Your task to perform on an android device: turn vacation reply on in the gmail app Image 0: 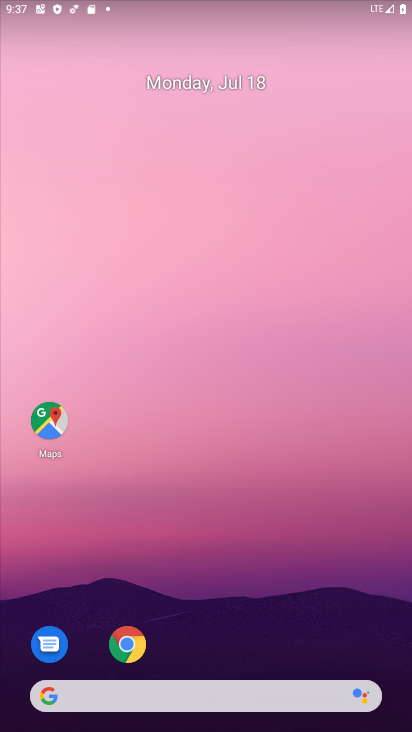
Step 0: drag from (188, 665) to (118, 78)
Your task to perform on an android device: turn vacation reply on in the gmail app Image 1: 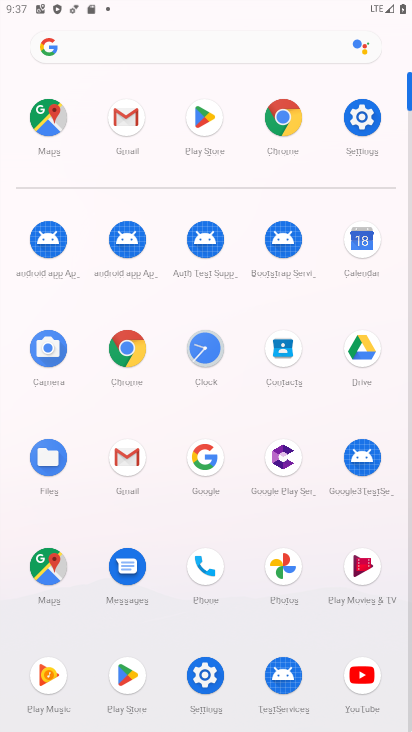
Step 1: click (138, 462)
Your task to perform on an android device: turn vacation reply on in the gmail app Image 2: 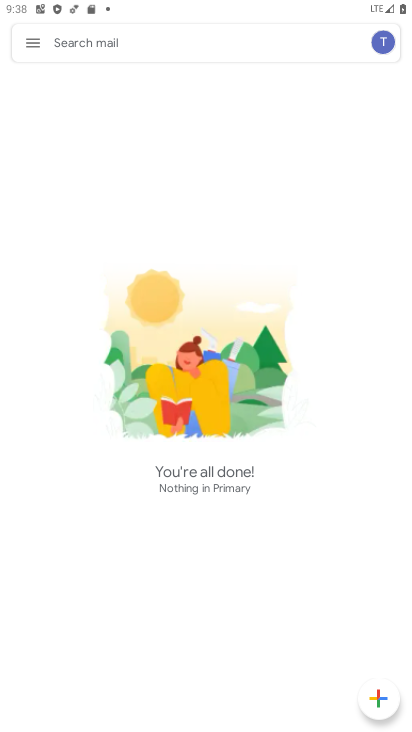
Step 2: click (35, 36)
Your task to perform on an android device: turn vacation reply on in the gmail app Image 3: 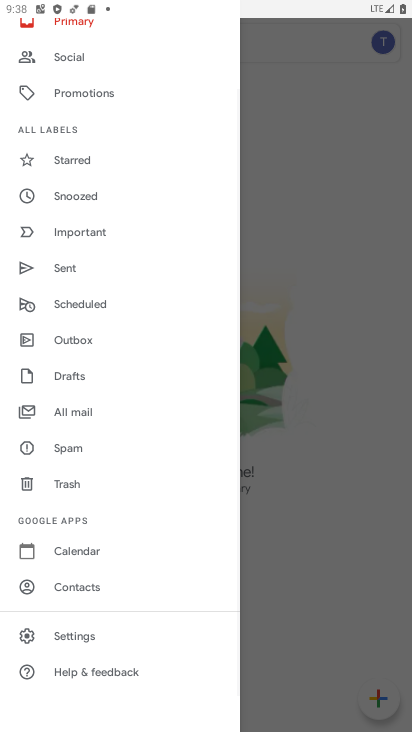
Step 3: click (78, 627)
Your task to perform on an android device: turn vacation reply on in the gmail app Image 4: 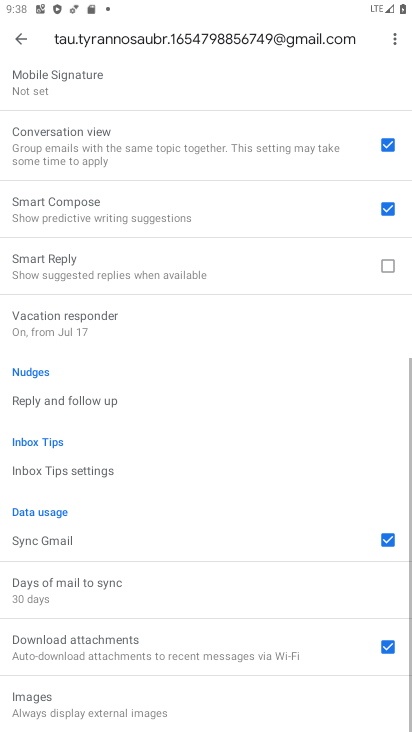
Step 4: drag from (78, 625) to (78, 173)
Your task to perform on an android device: turn vacation reply on in the gmail app Image 5: 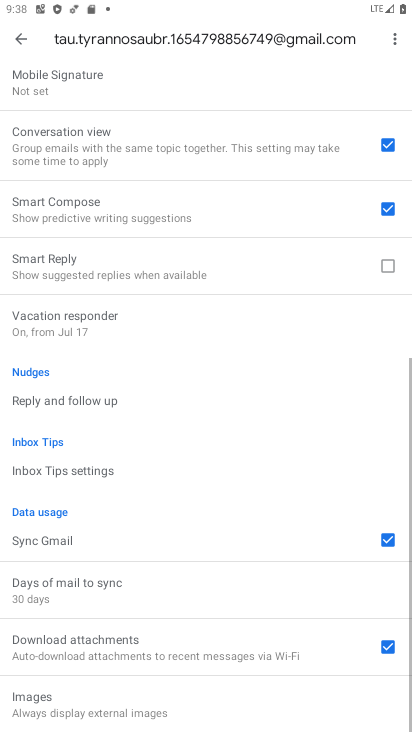
Step 5: drag from (188, 651) to (172, 169)
Your task to perform on an android device: turn vacation reply on in the gmail app Image 6: 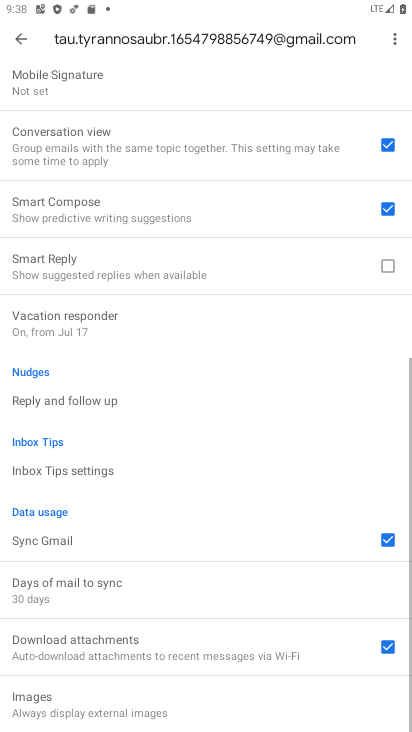
Step 6: drag from (115, 195) to (84, 645)
Your task to perform on an android device: turn vacation reply on in the gmail app Image 7: 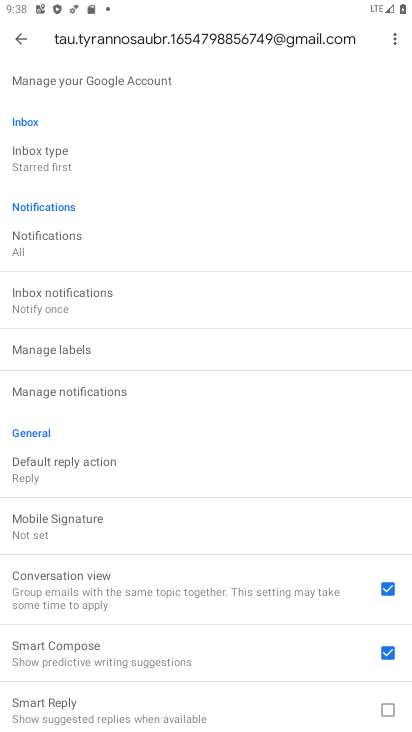
Step 7: drag from (141, 618) to (132, 371)
Your task to perform on an android device: turn vacation reply on in the gmail app Image 8: 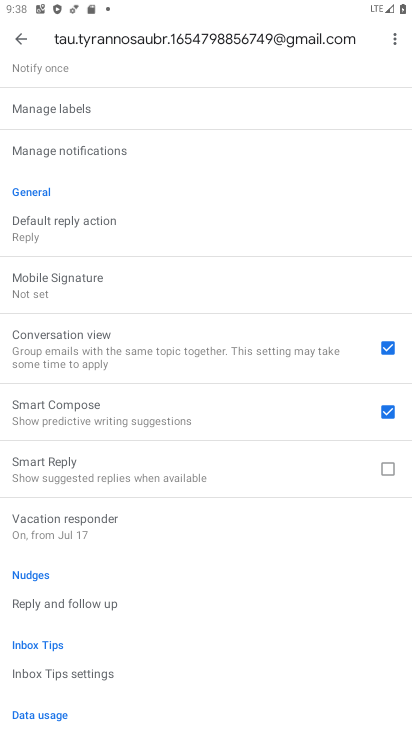
Step 8: click (37, 536)
Your task to perform on an android device: turn vacation reply on in the gmail app Image 9: 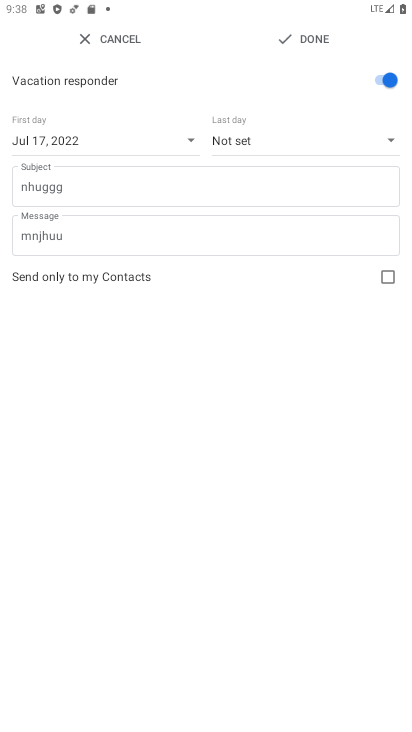
Step 9: click (316, 32)
Your task to perform on an android device: turn vacation reply on in the gmail app Image 10: 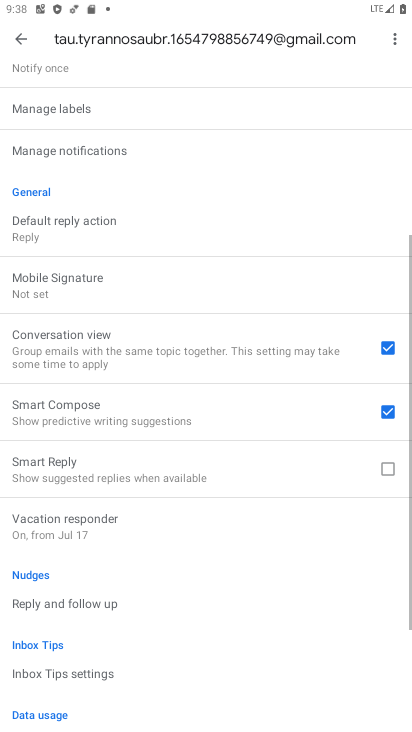
Step 10: task complete